Your task to perform on an android device: Show me productivity apps on the Play Store Image 0: 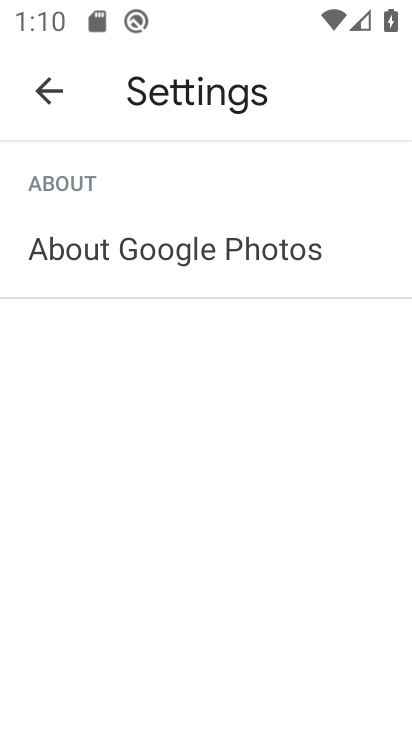
Step 0: press home button
Your task to perform on an android device: Show me productivity apps on the Play Store Image 1: 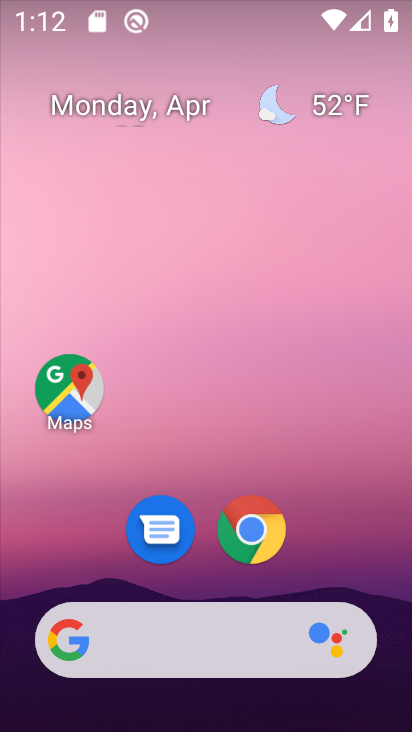
Step 1: drag from (403, 562) to (390, 107)
Your task to perform on an android device: Show me productivity apps on the Play Store Image 2: 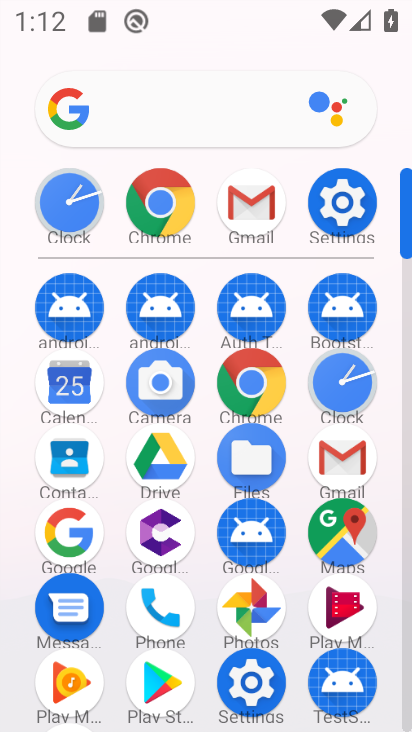
Step 2: click (167, 682)
Your task to perform on an android device: Show me productivity apps on the Play Store Image 3: 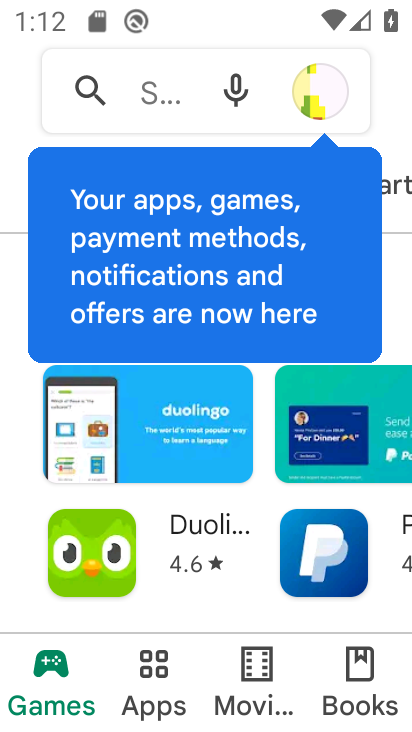
Step 3: click (143, 662)
Your task to perform on an android device: Show me productivity apps on the Play Store Image 4: 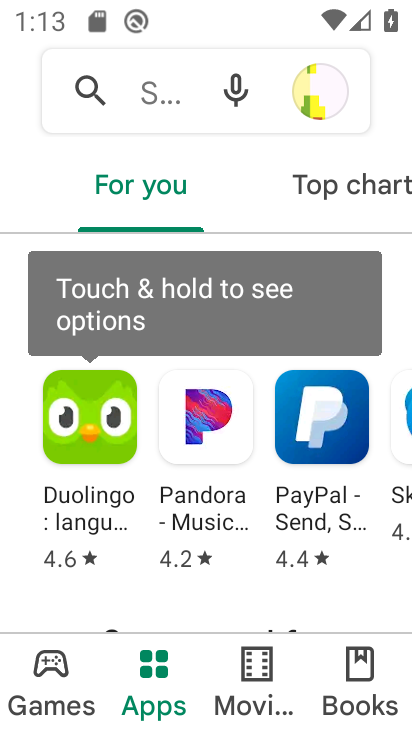
Step 4: type "productivity apps"
Your task to perform on an android device: Show me productivity apps on the Play Store Image 5: 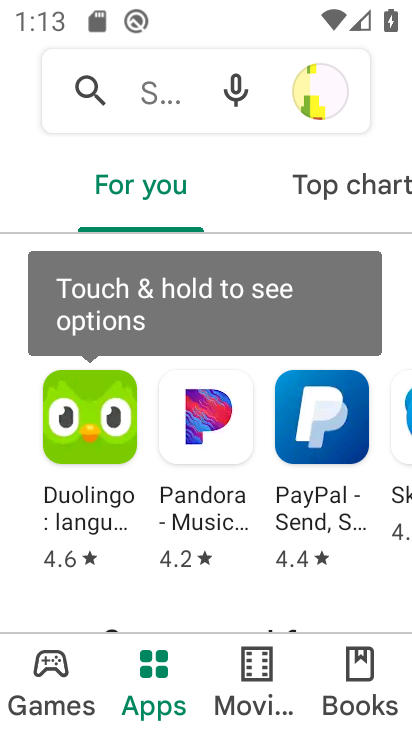
Step 5: click (166, 91)
Your task to perform on an android device: Show me productivity apps on the Play Store Image 6: 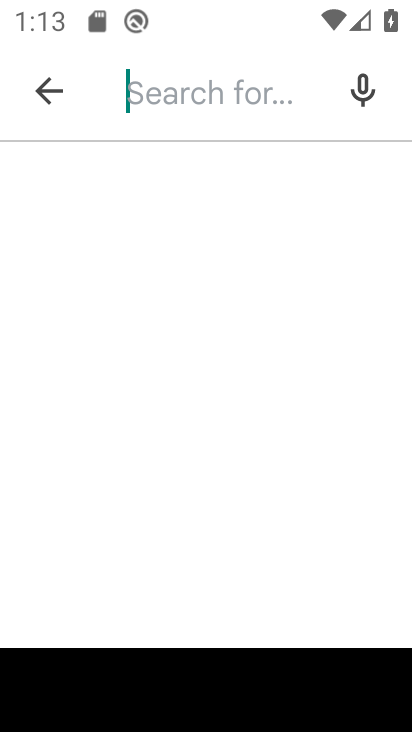
Step 6: type "productivity apps"
Your task to perform on an android device: Show me productivity apps on the Play Store Image 7: 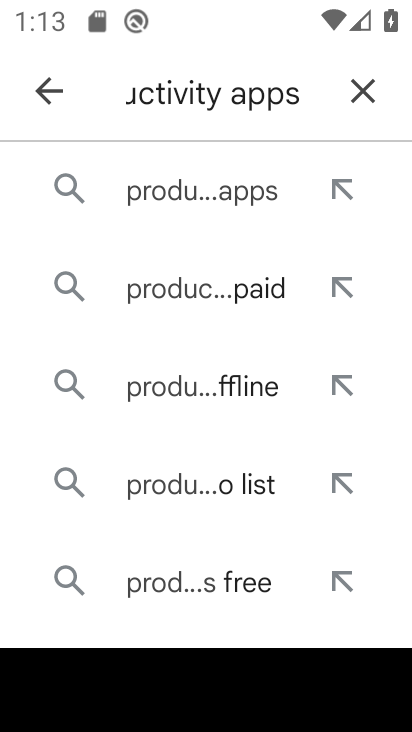
Step 7: click (165, 188)
Your task to perform on an android device: Show me productivity apps on the Play Store Image 8: 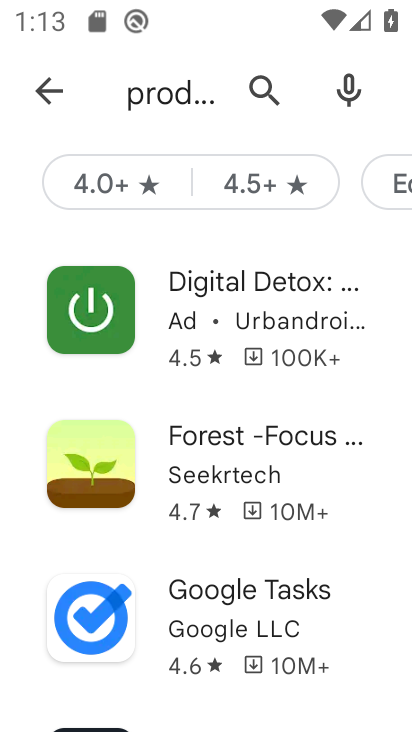
Step 8: task complete